Your task to perform on an android device: What's the news this evening? Image 0: 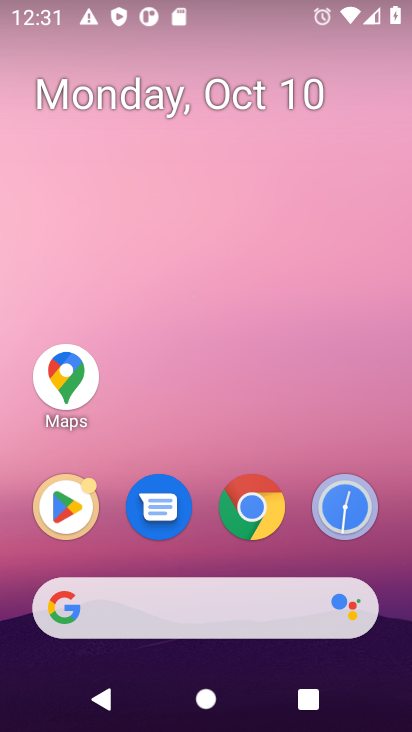
Step 0: press home button
Your task to perform on an android device: What's the news this evening? Image 1: 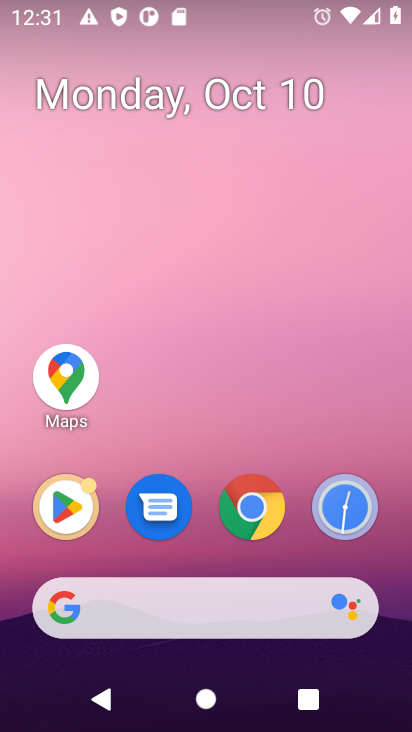
Step 1: click (264, 614)
Your task to perform on an android device: What's the news this evening? Image 2: 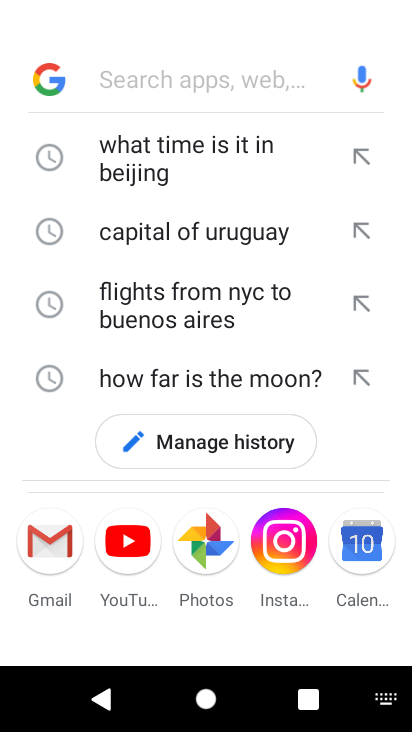
Step 2: type "What's the news this evening"
Your task to perform on an android device: What's the news this evening? Image 3: 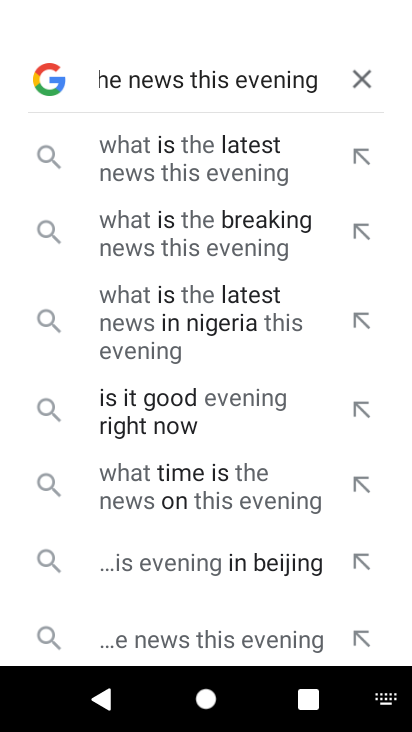
Step 3: press enter
Your task to perform on an android device: What's the news this evening? Image 4: 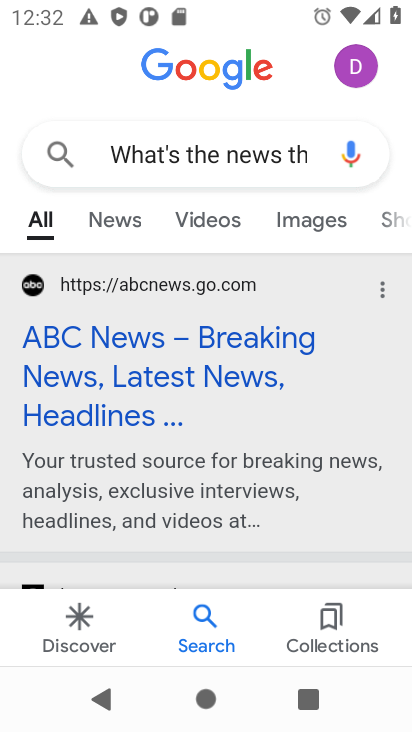
Step 4: click (194, 347)
Your task to perform on an android device: What's the news this evening? Image 5: 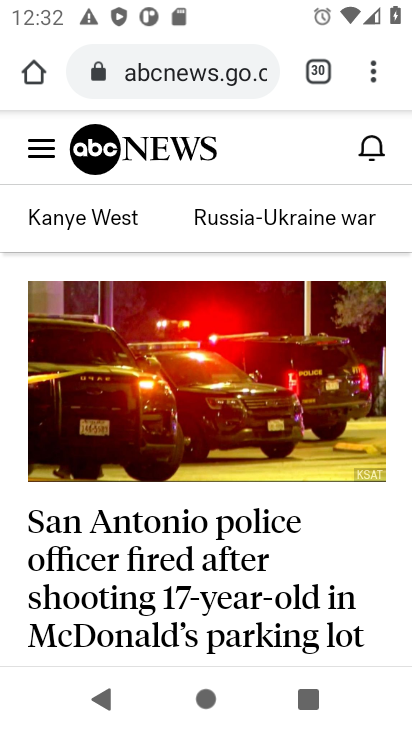
Step 5: task complete